Your task to perform on an android device: open app "Calculator" (install if not already installed) Image 0: 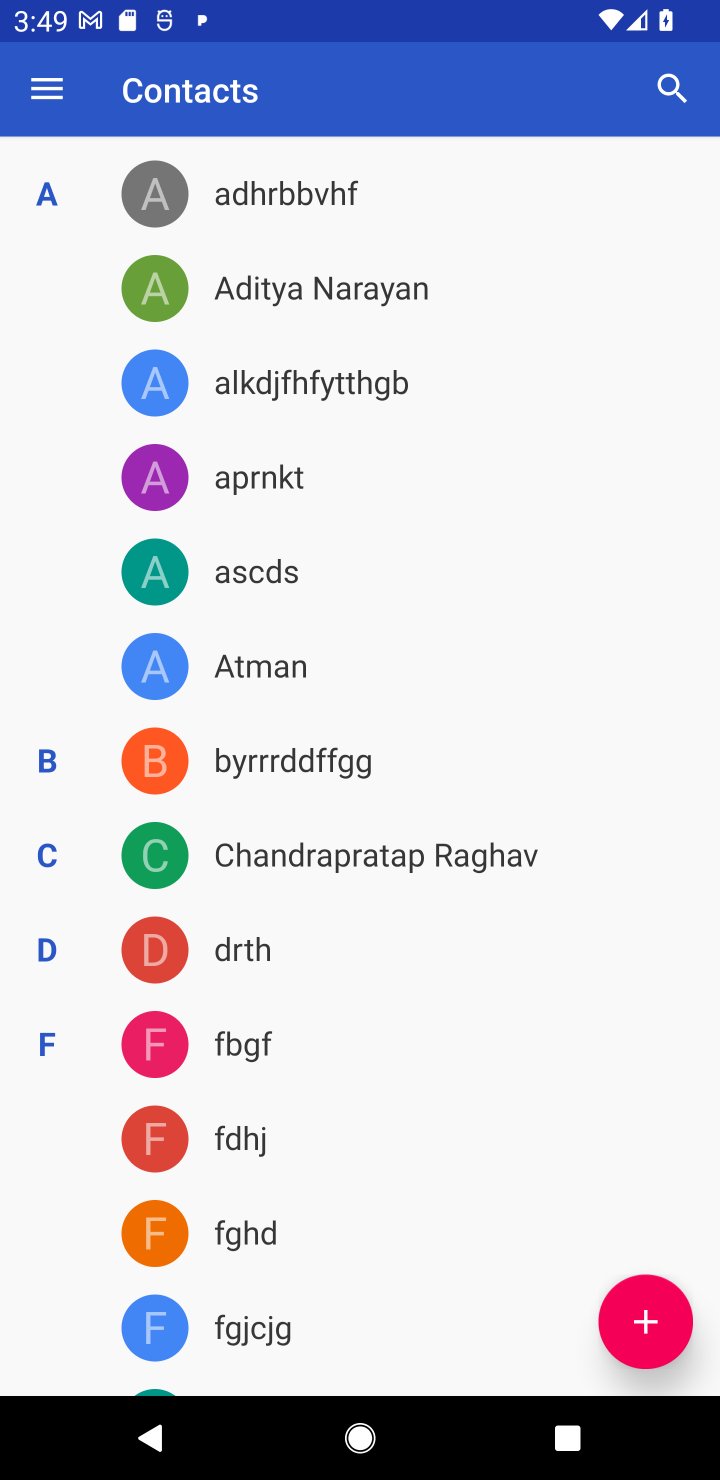
Step 0: press home button
Your task to perform on an android device: open app "Calculator" (install if not already installed) Image 1: 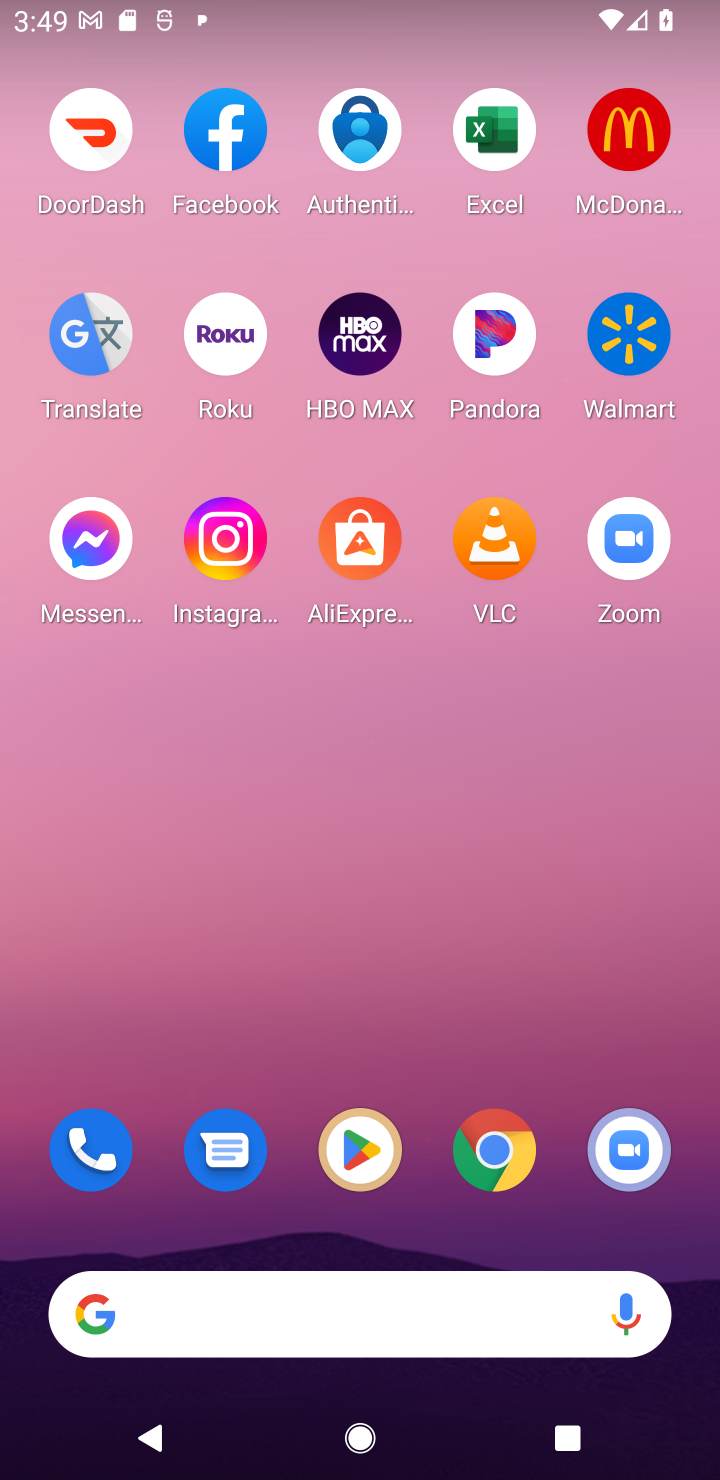
Step 1: click (372, 1146)
Your task to perform on an android device: open app "Calculator" (install if not already installed) Image 2: 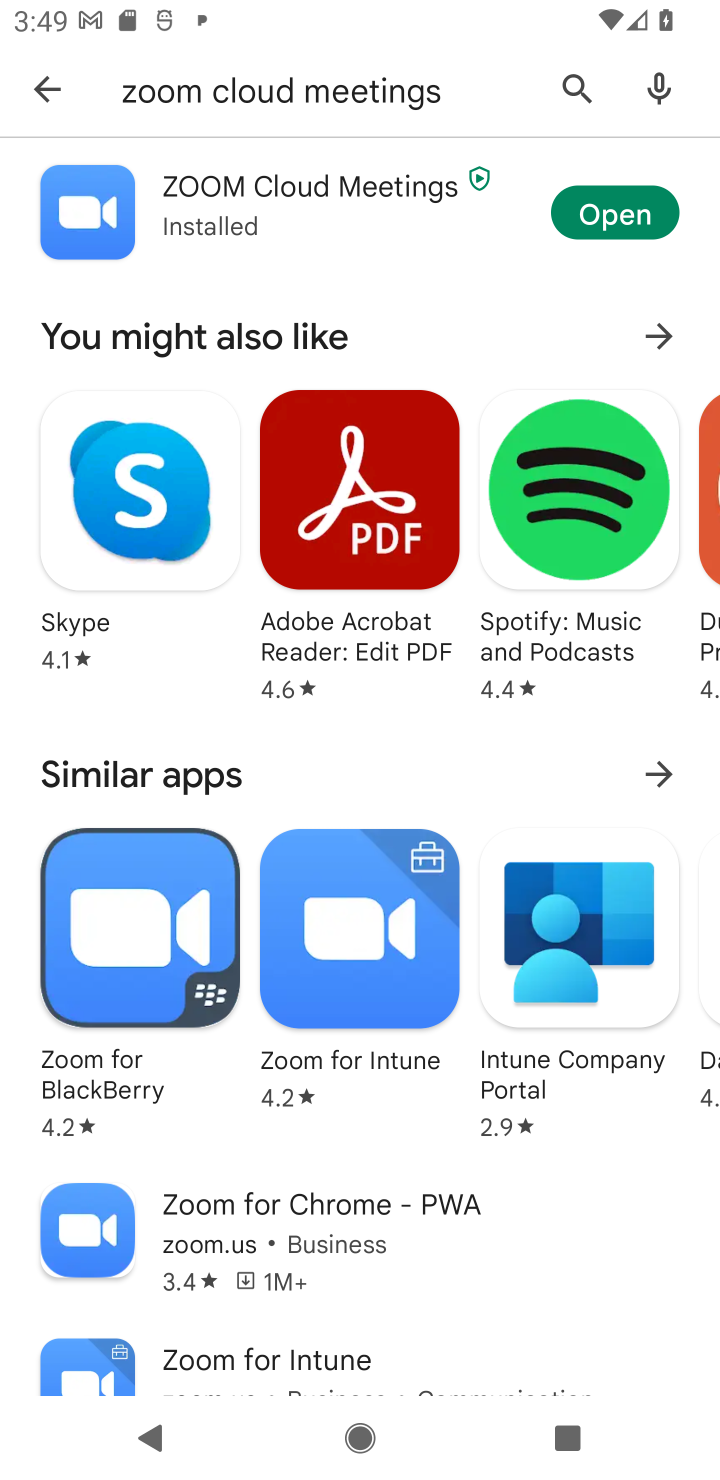
Step 2: click (578, 93)
Your task to perform on an android device: open app "Calculator" (install if not already installed) Image 3: 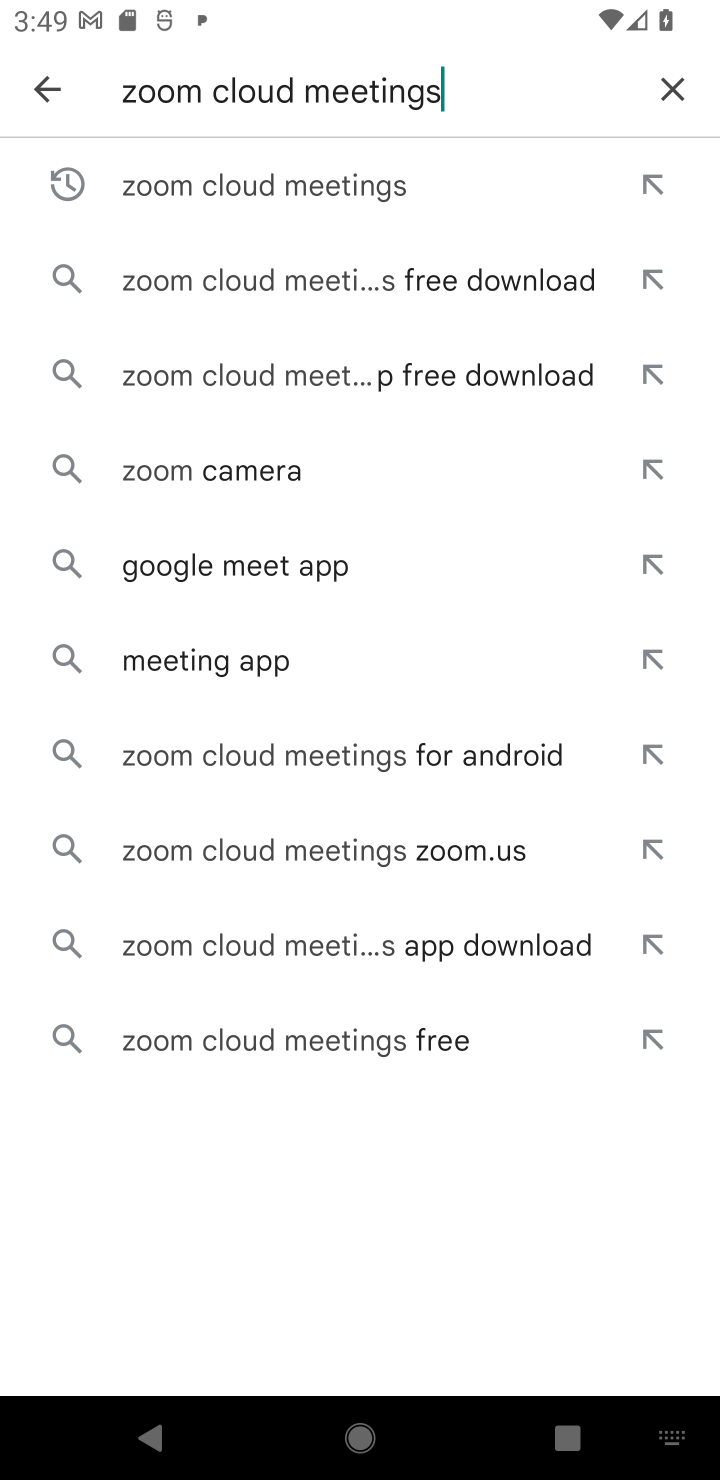
Step 3: click (674, 86)
Your task to perform on an android device: open app "Calculator" (install if not already installed) Image 4: 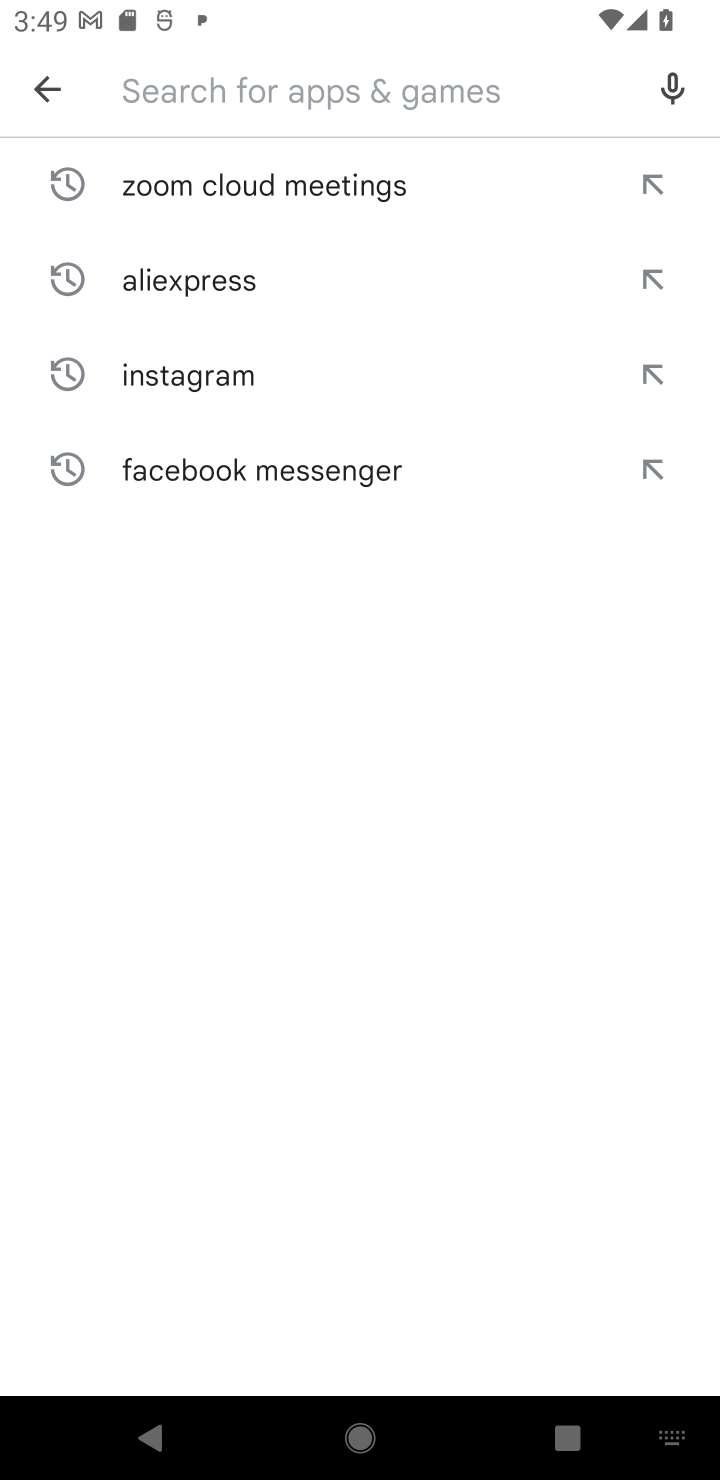
Step 4: type "Calculator"
Your task to perform on an android device: open app "Calculator" (install if not already installed) Image 5: 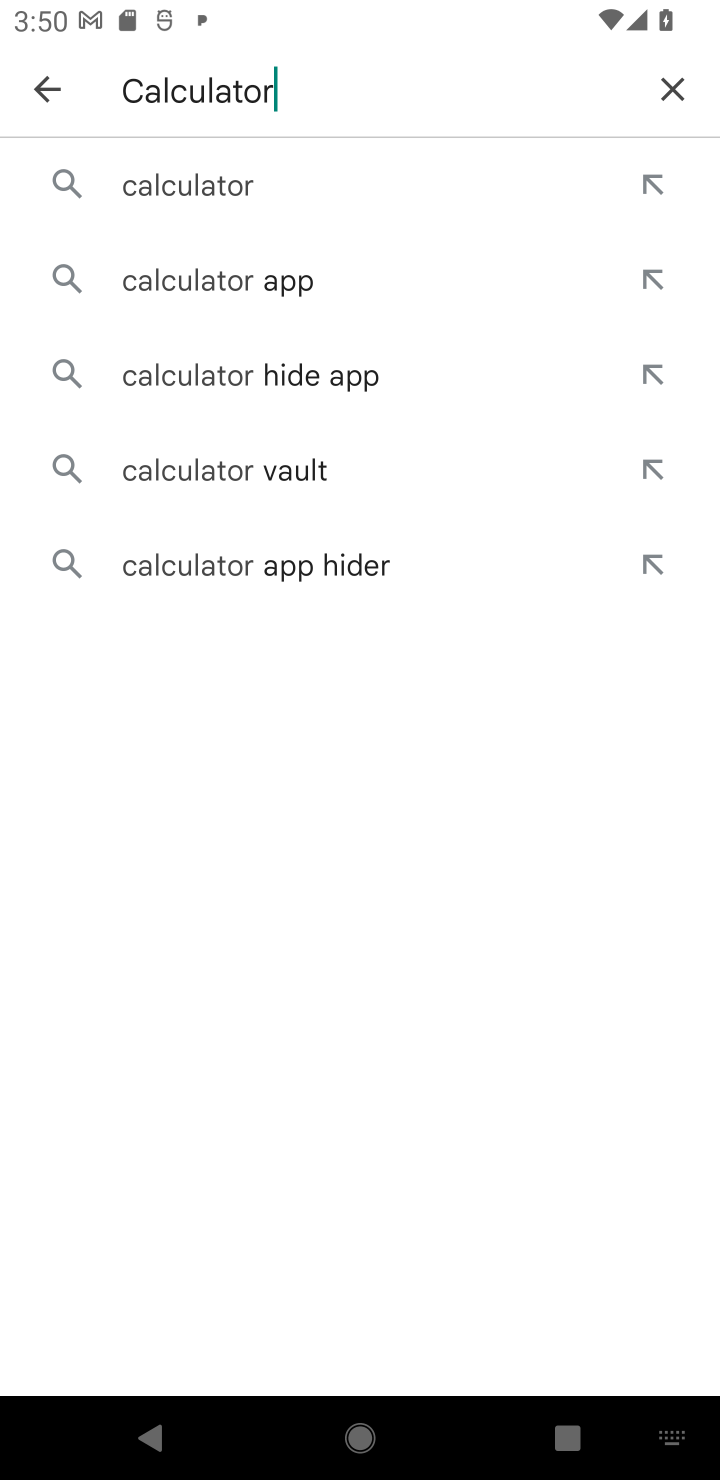
Step 5: click (190, 186)
Your task to perform on an android device: open app "Calculator" (install if not already installed) Image 6: 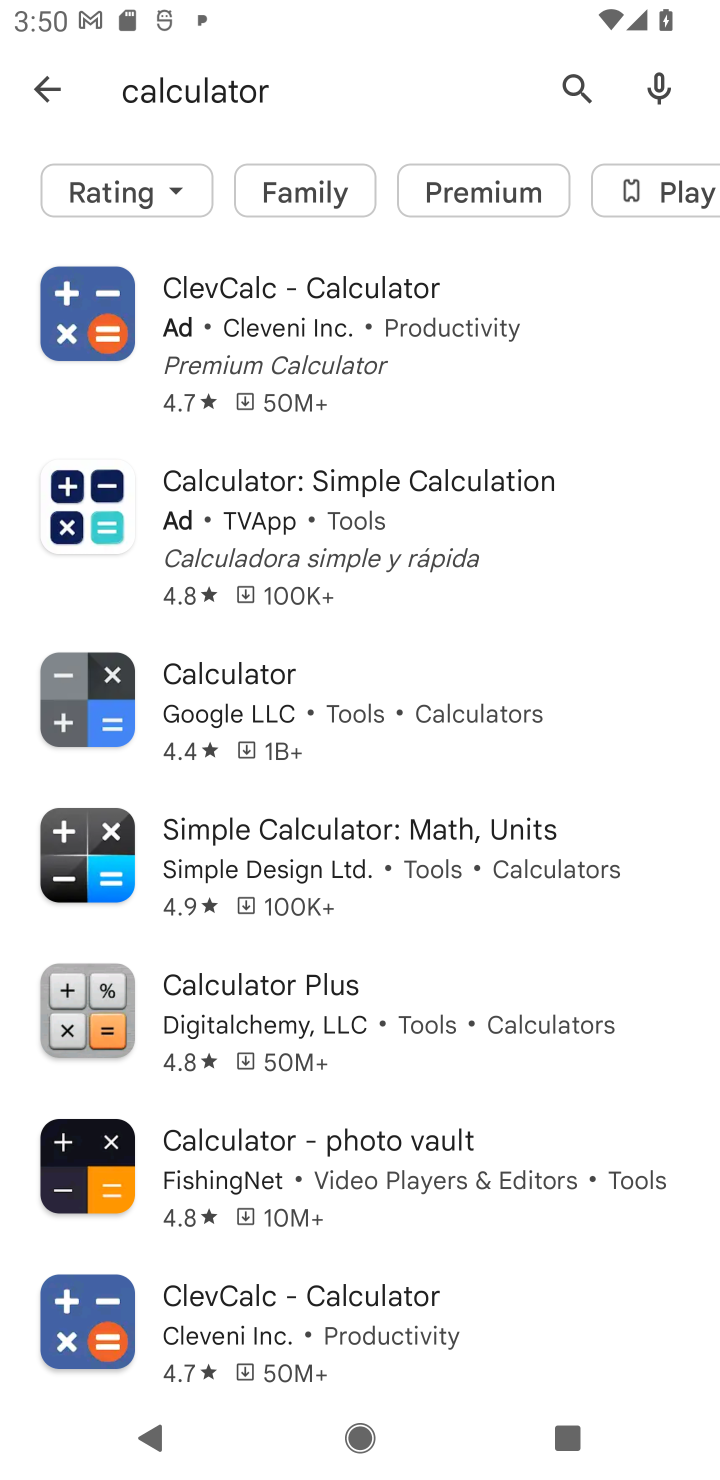
Step 6: click (233, 679)
Your task to perform on an android device: open app "Calculator" (install if not already installed) Image 7: 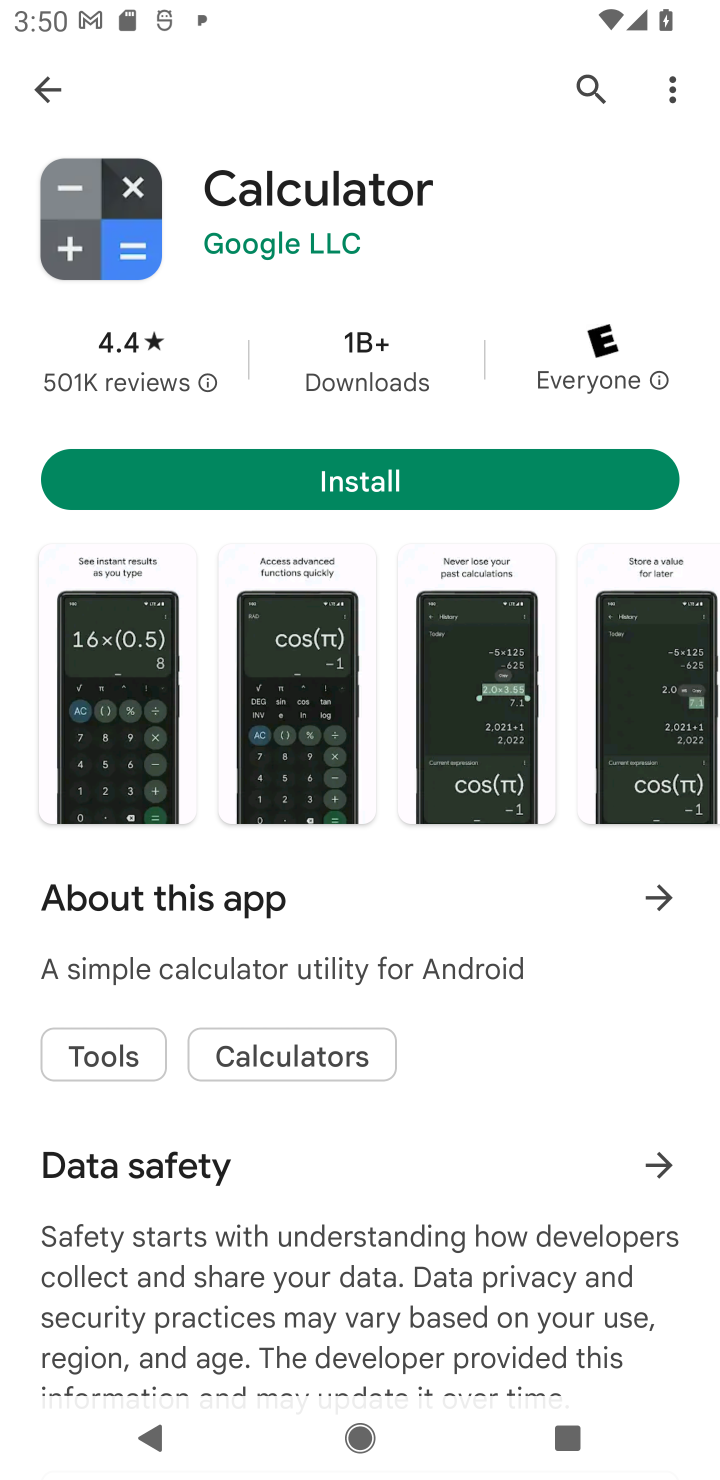
Step 7: click (346, 479)
Your task to perform on an android device: open app "Calculator" (install if not already installed) Image 8: 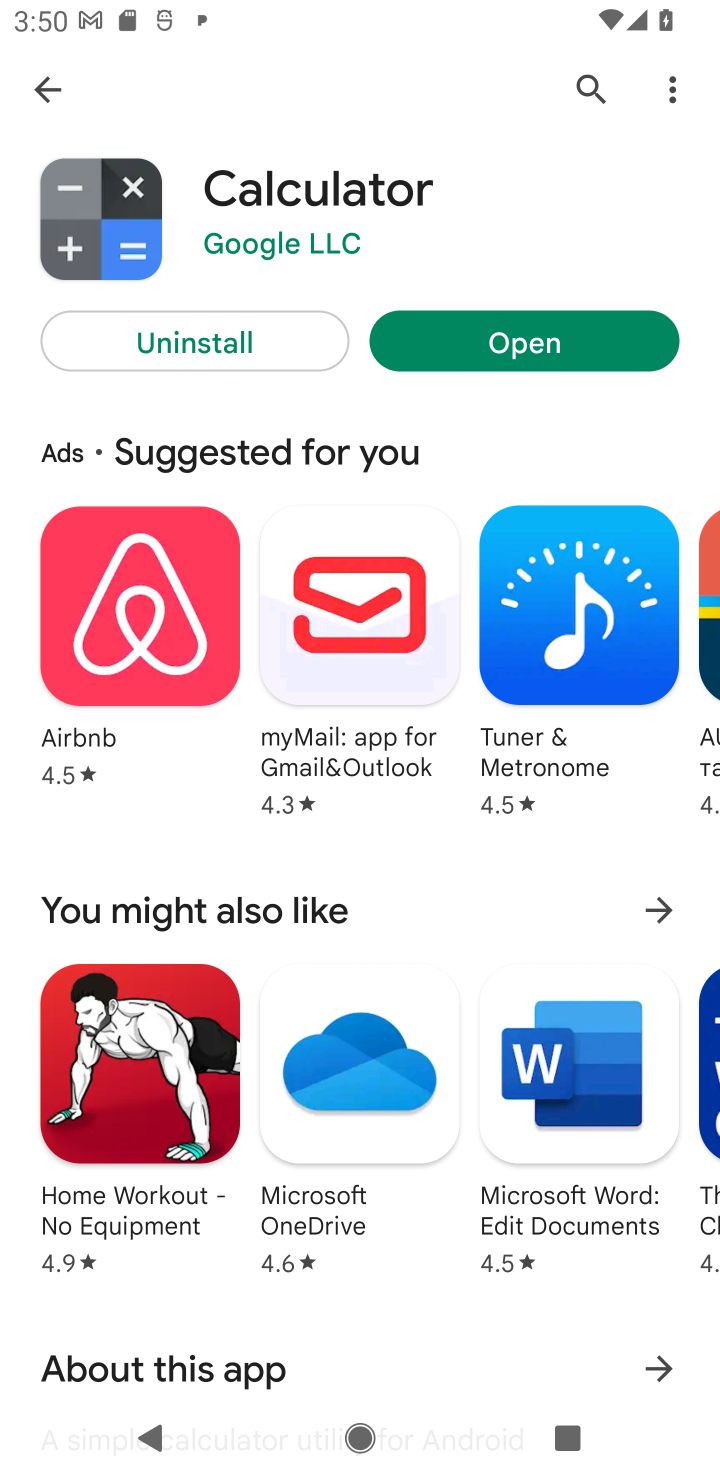
Step 8: click (509, 335)
Your task to perform on an android device: open app "Calculator" (install if not already installed) Image 9: 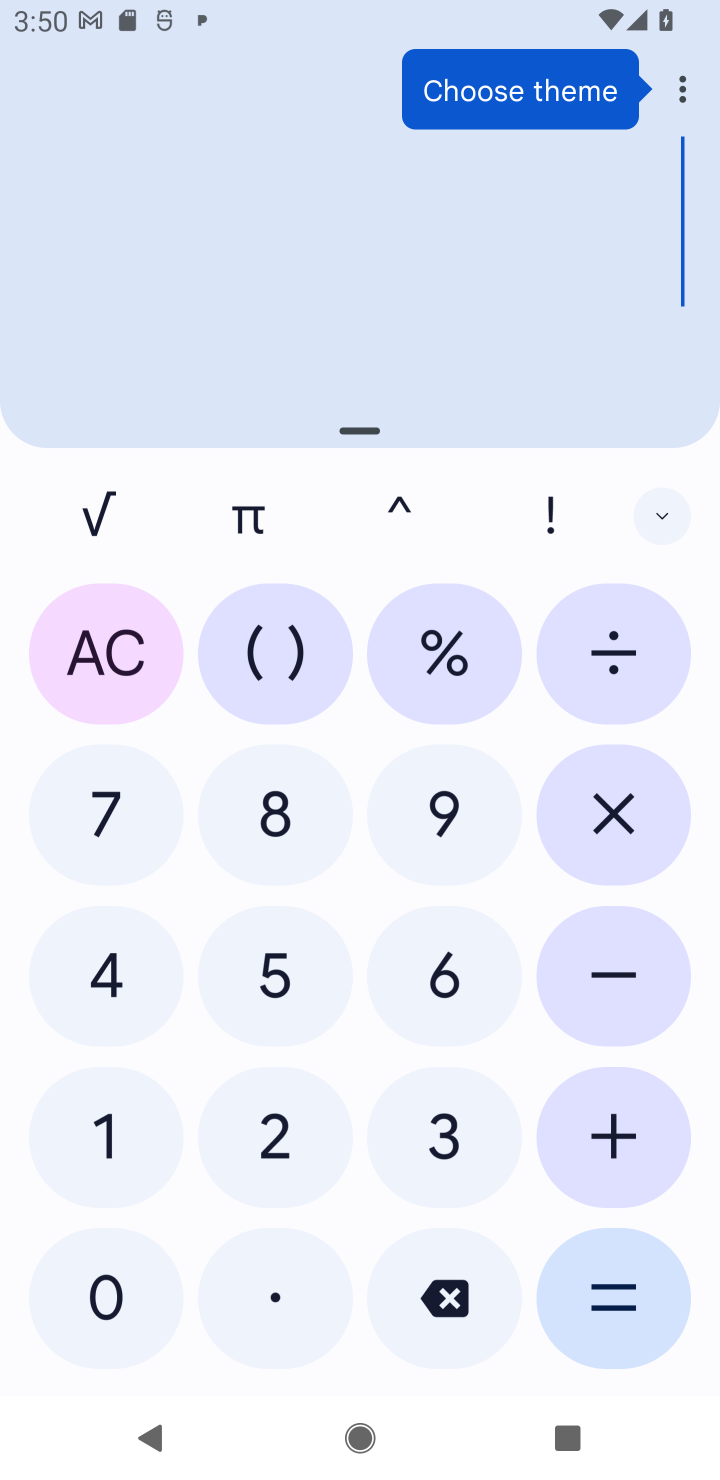
Step 9: task complete